Your task to perform on an android device: change the upload size in google photos Image 0: 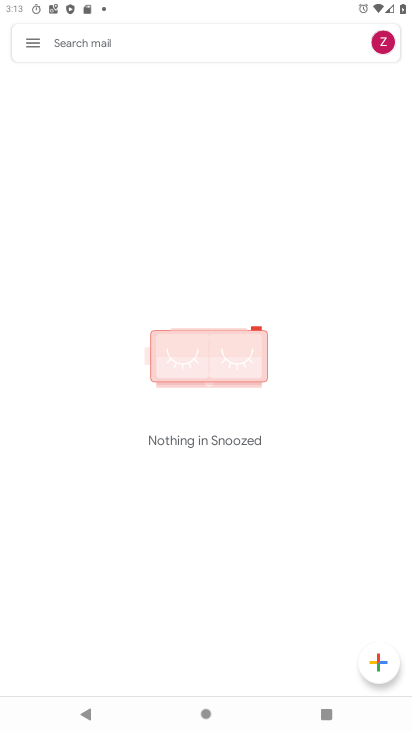
Step 0: press home button
Your task to perform on an android device: change the upload size in google photos Image 1: 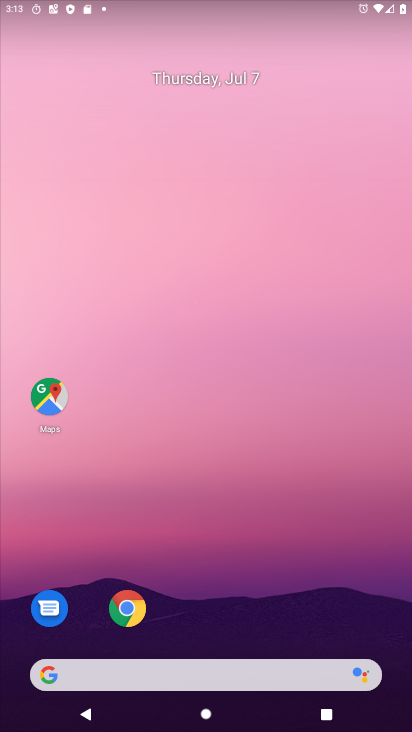
Step 1: drag from (240, 721) to (235, 146)
Your task to perform on an android device: change the upload size in google photos Image 2: 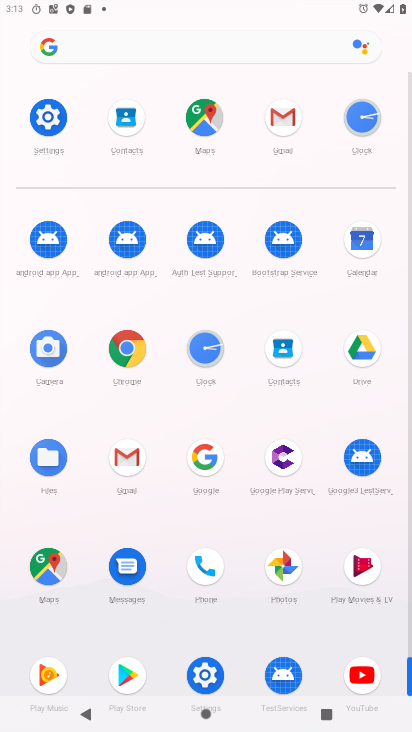
Step 2: click (284, 563)
Your task to perform on an android device: change the upload size in google photos Image 3: 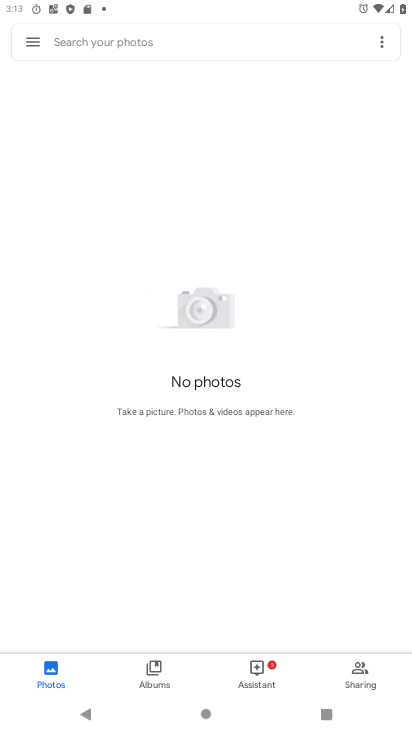
Step 3: click (29, 42)
Your task to perform on an android device: change the upload size in google photos Image 4: 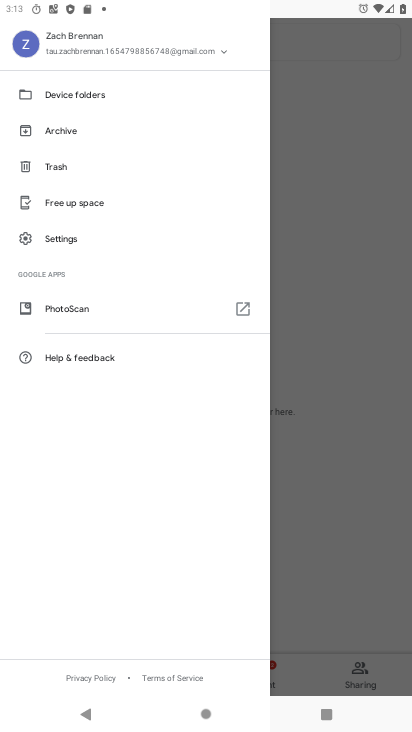
Step 4: click (62, 237)
Your task to perform on an android device: change the upload size in google photos Image 5: 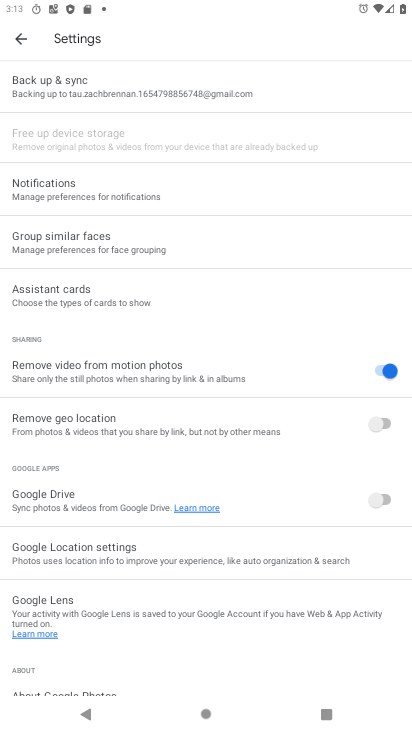
Step 5: click (64, 87)
Your task to perform on an android device: change the upload size in google photos Image 6: 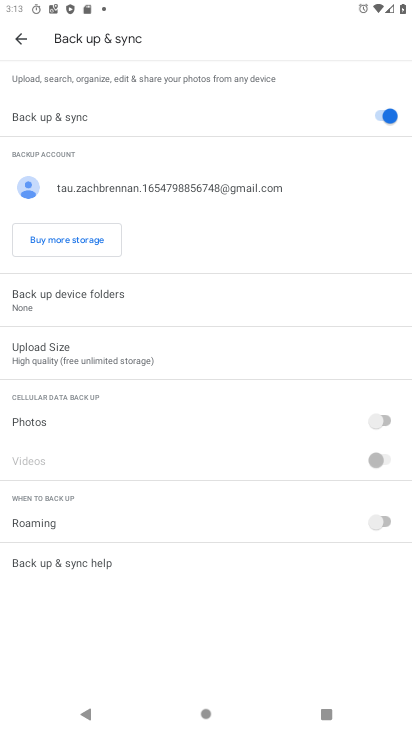
Step 6: click (54, 351)
Your task to perform on an android device: change the upload size in google photos Image 7: 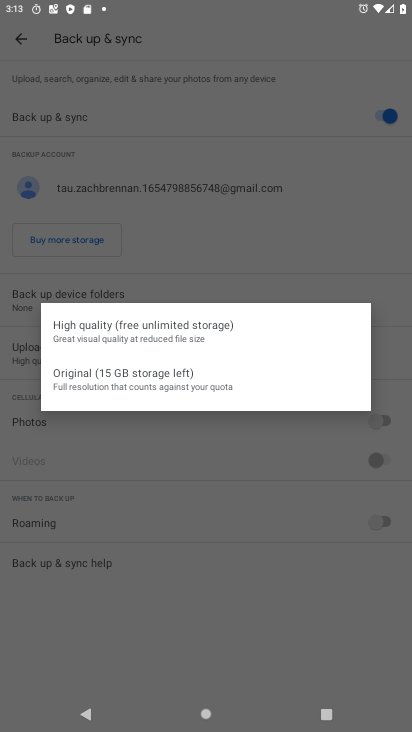
Step 7: click (77, 380)
Your task to perform on an android device: change the upload size in google photos Image 8: 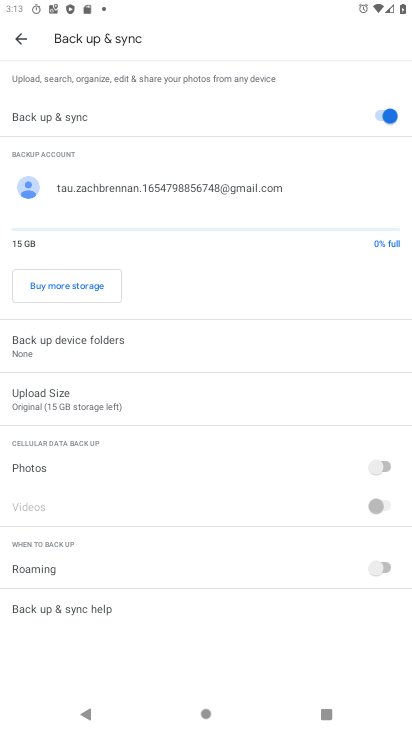
Step 8: task complete